Your task to perform on an android device: Open Google Chrome and open the bookmarks view Image 0: 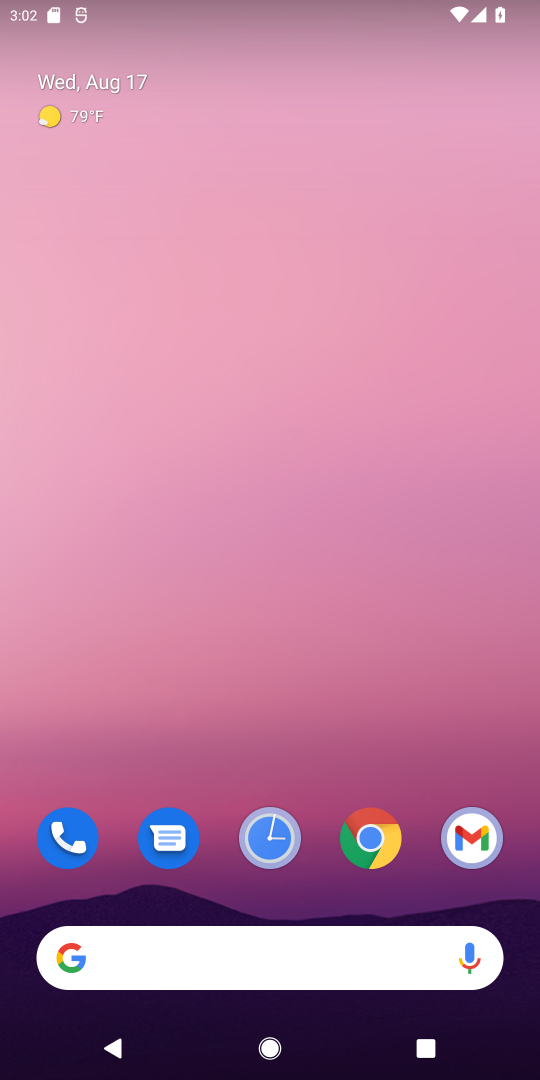
Step 0: click (357, 851)
Your task to perform on an android device: Open Google Chrome and open the bookmarks view Image 1: 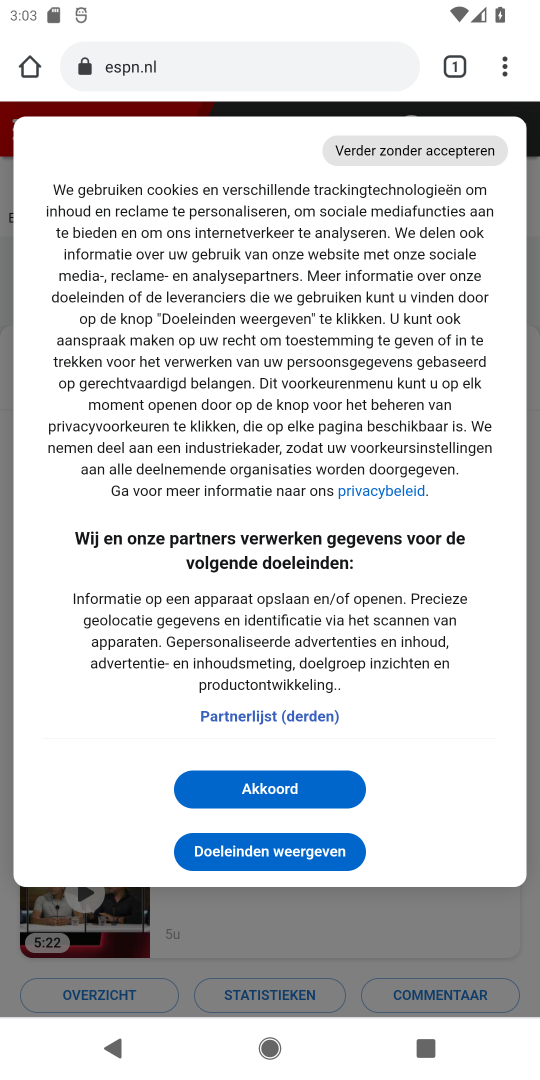
Step 1: click (498, 63)
Your task to perform on an android device: Open Google Chrome and open the bookmarks view Image 2: 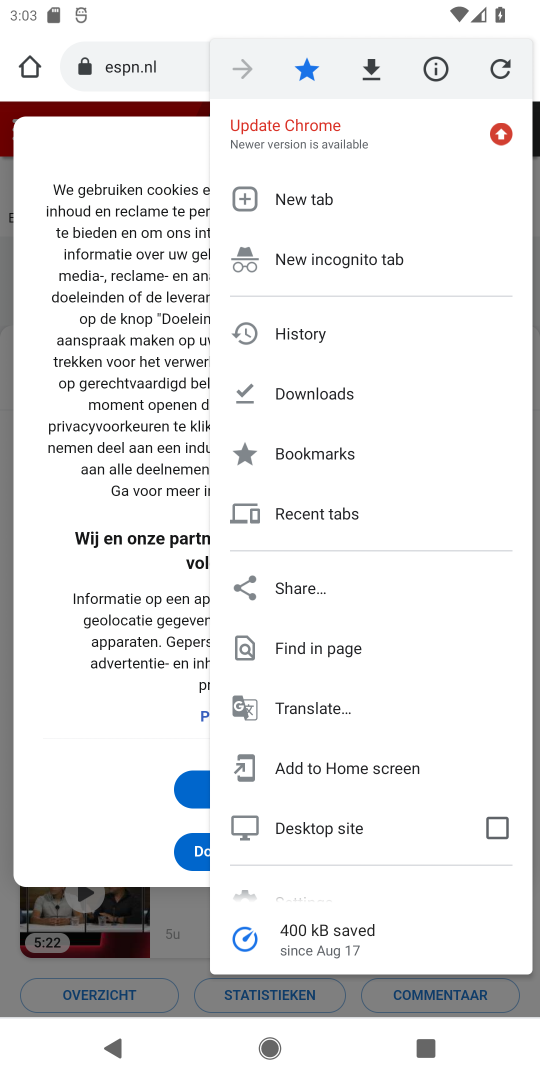
Step 2: click (300, 458)
Your task to perform on an android device: Open Google Chrome and open the bookmarks view Image 3: 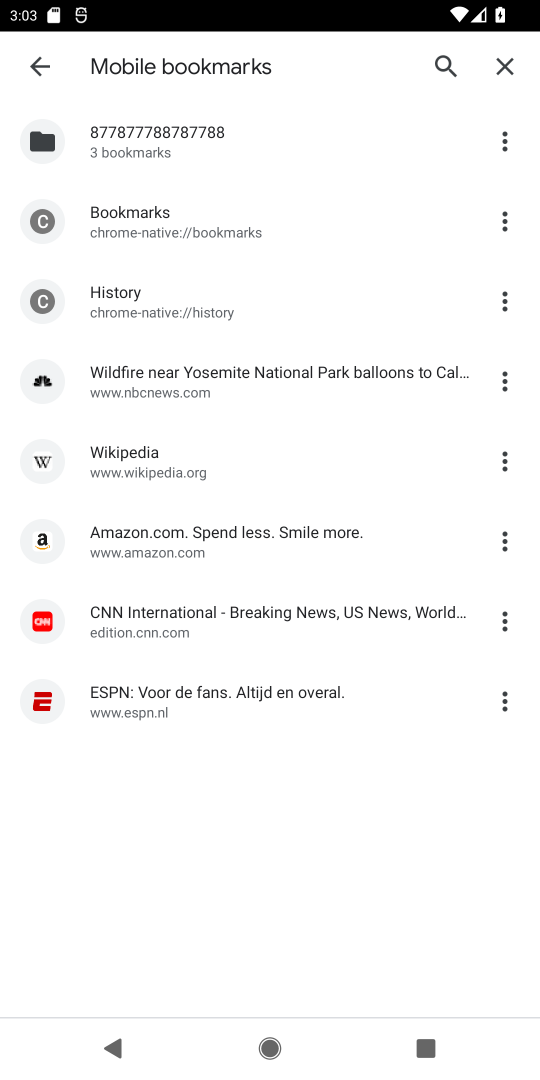
Step 3: click (136, 214)
Your task to perform on an android device: Open Google Chrome and open the bookmarks view Image 4: 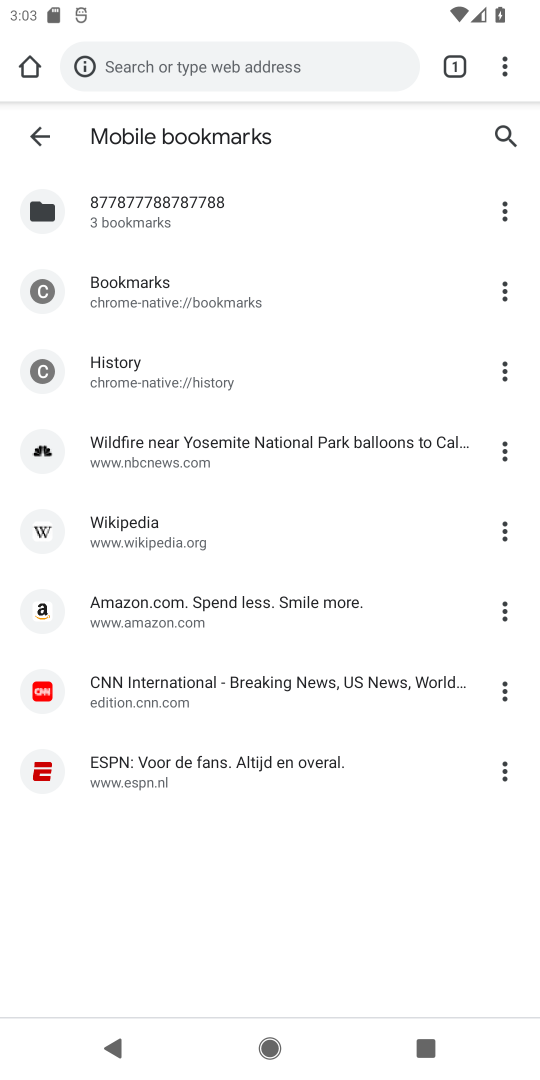
Step 4: task complete